Your task to perform on an android device: open app "Chime – Mobile Banking" (install if not already installed) Image 0: 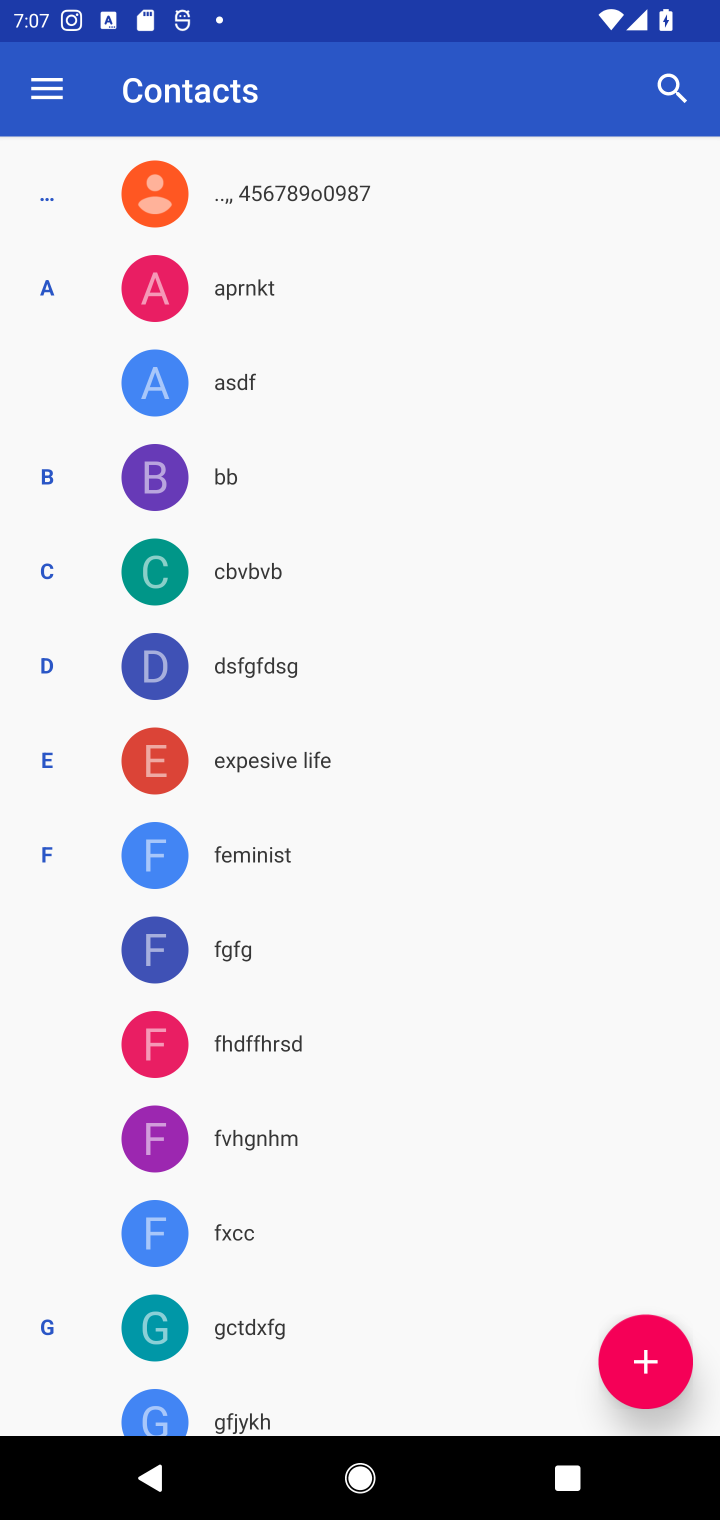
Step 0: press home button
Your task to perform on an android device: open app "Chime – Mobile Banking" (install if not already installed) Image 1: 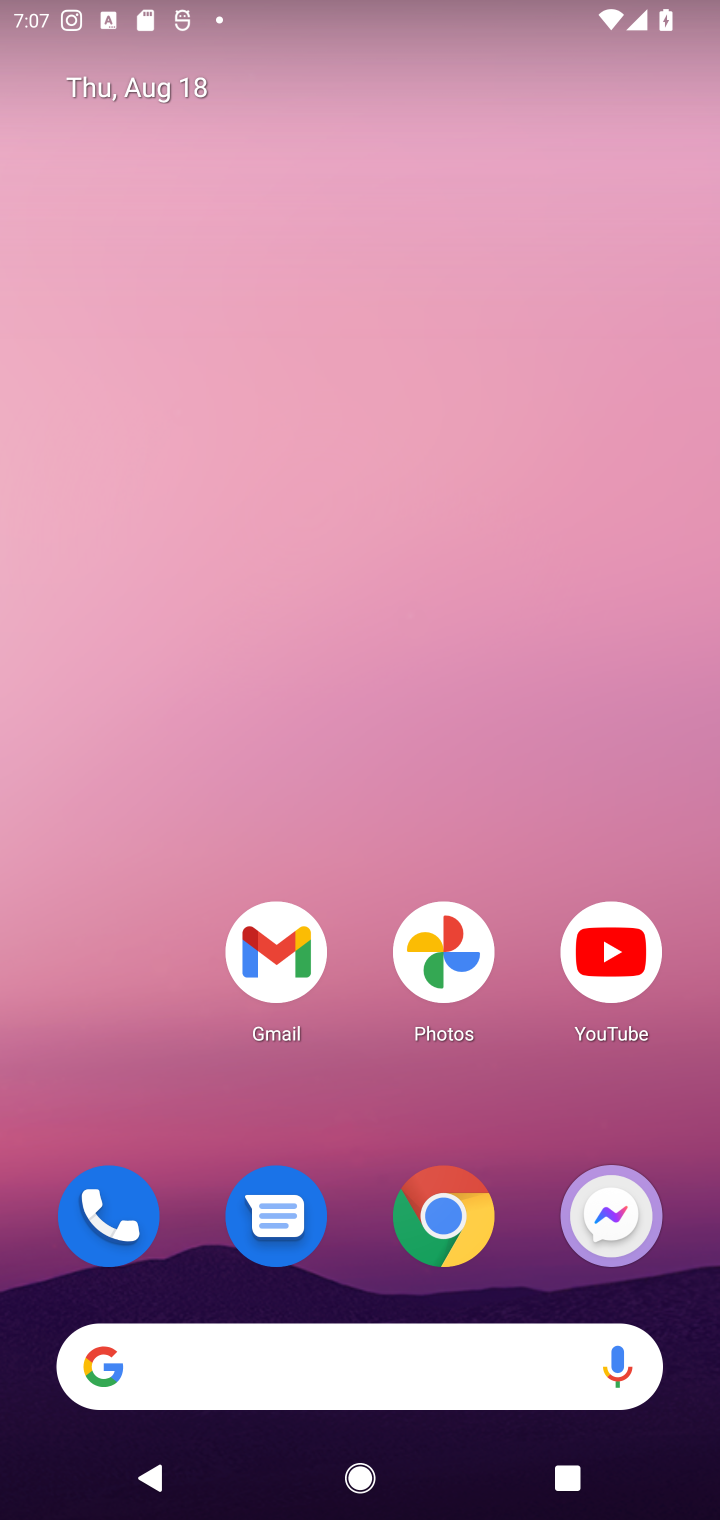
Step 1: drag from (380, 904) to (413, 381)
Your task to perform on an android device: open app "Chime – Mobile Banking" (install if not already installed) Image 2: 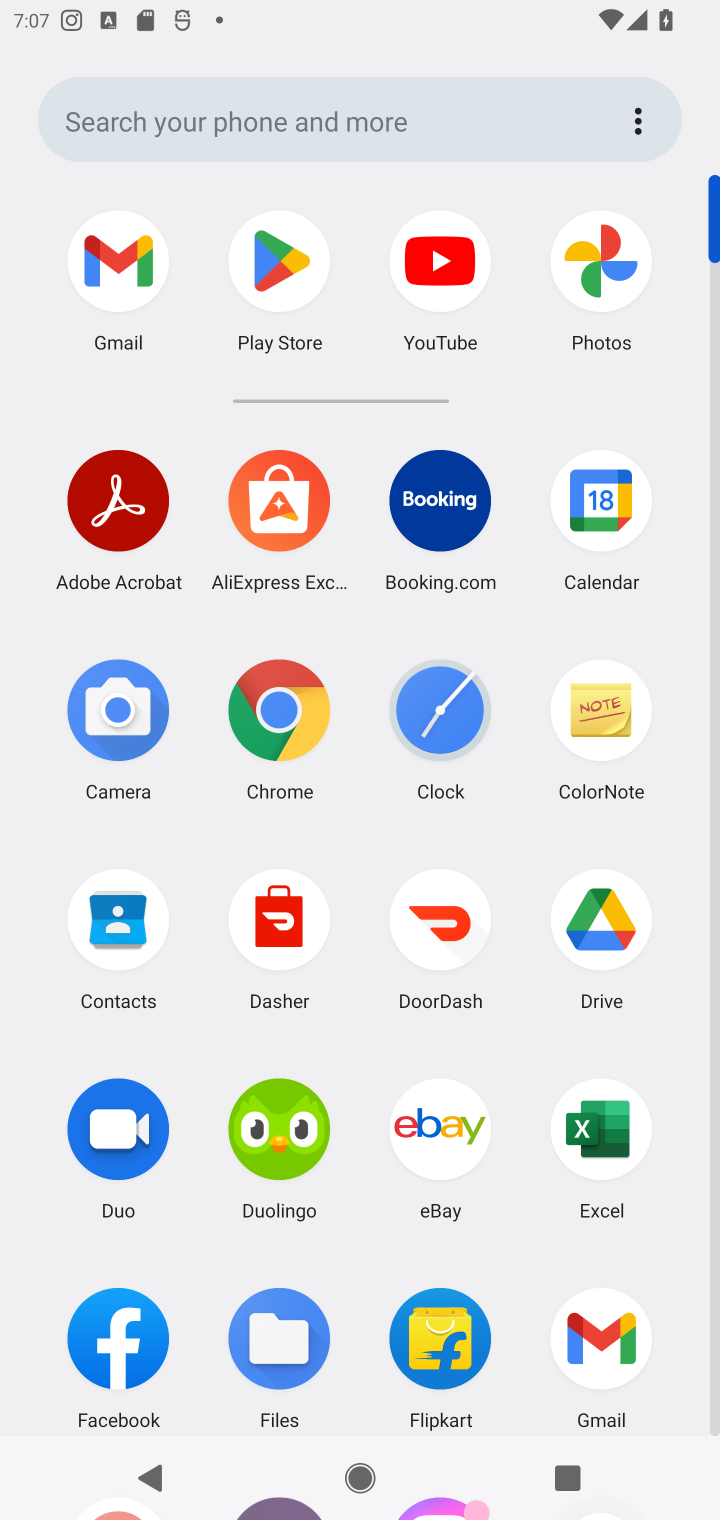
Step 2: click (295, 272)
Your task to perform on an android device: open app "Chime – Mobile Banking" (install if not already installed) Image 3: 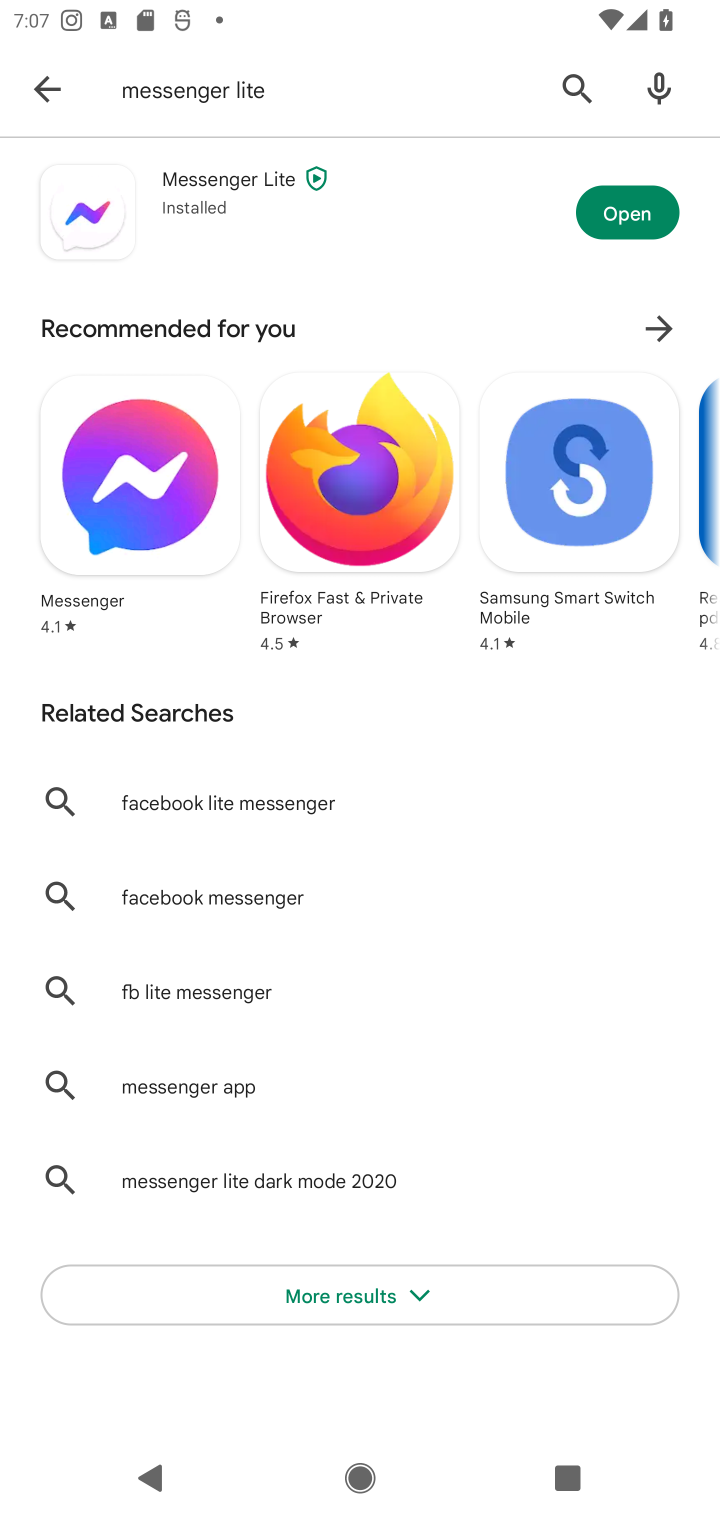
Step 3: click (578, 86)
Your task to perform on an android device: open app "Chime – Mobile Banking" (install if not already installed) Image 4: 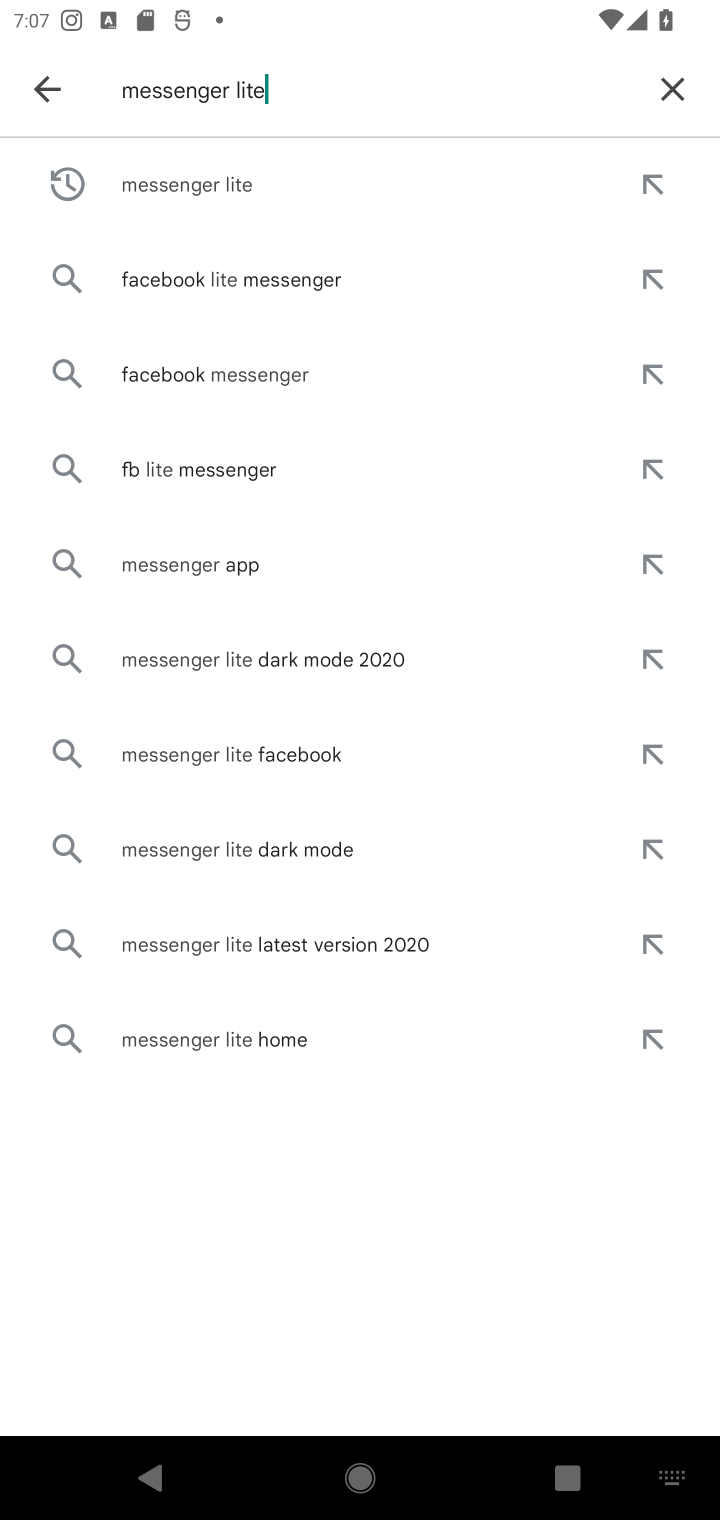
Step 4: click (659, 89)
Your task to perform on an android device: open app "Chime – Mobile Banking" (install if not already installed) Image 5: 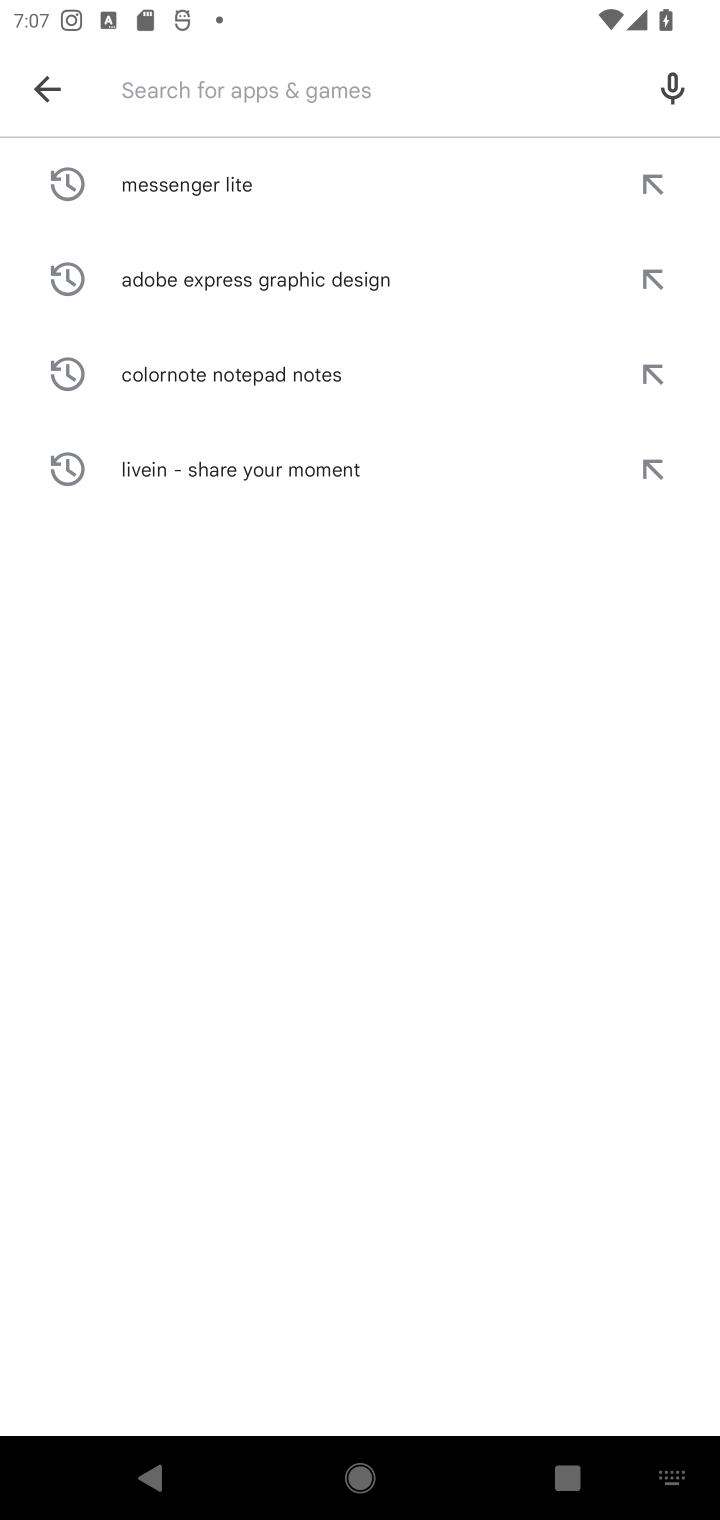
Step 5: type "Chime – Mobile Banking"
Your task to perform on an android device: open app "Chime – Mobile Banking" (install if not already installed) Image 6: 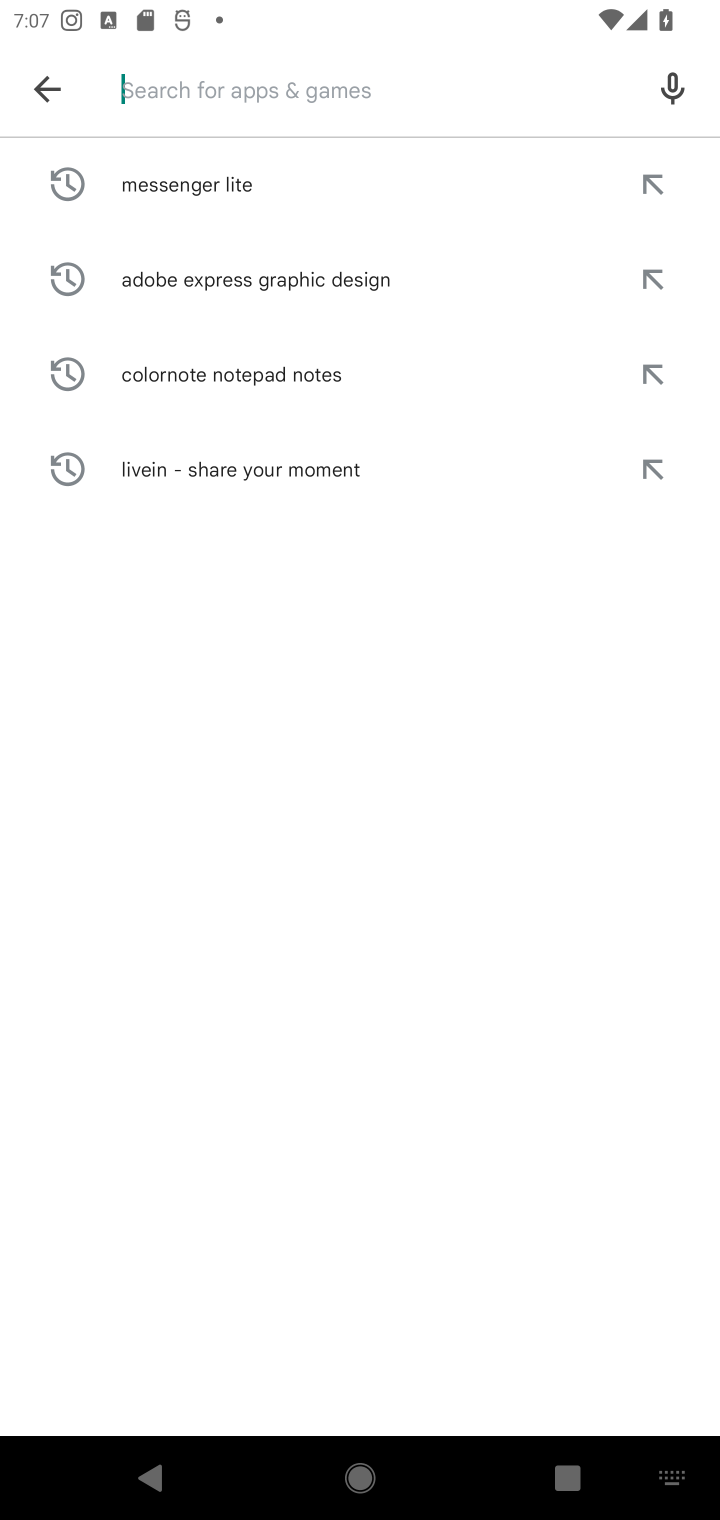
Step 6: type ""
Your task to perform on an android device: open app "Chime – Mobile Banking" (install if not already installed) Image 7: 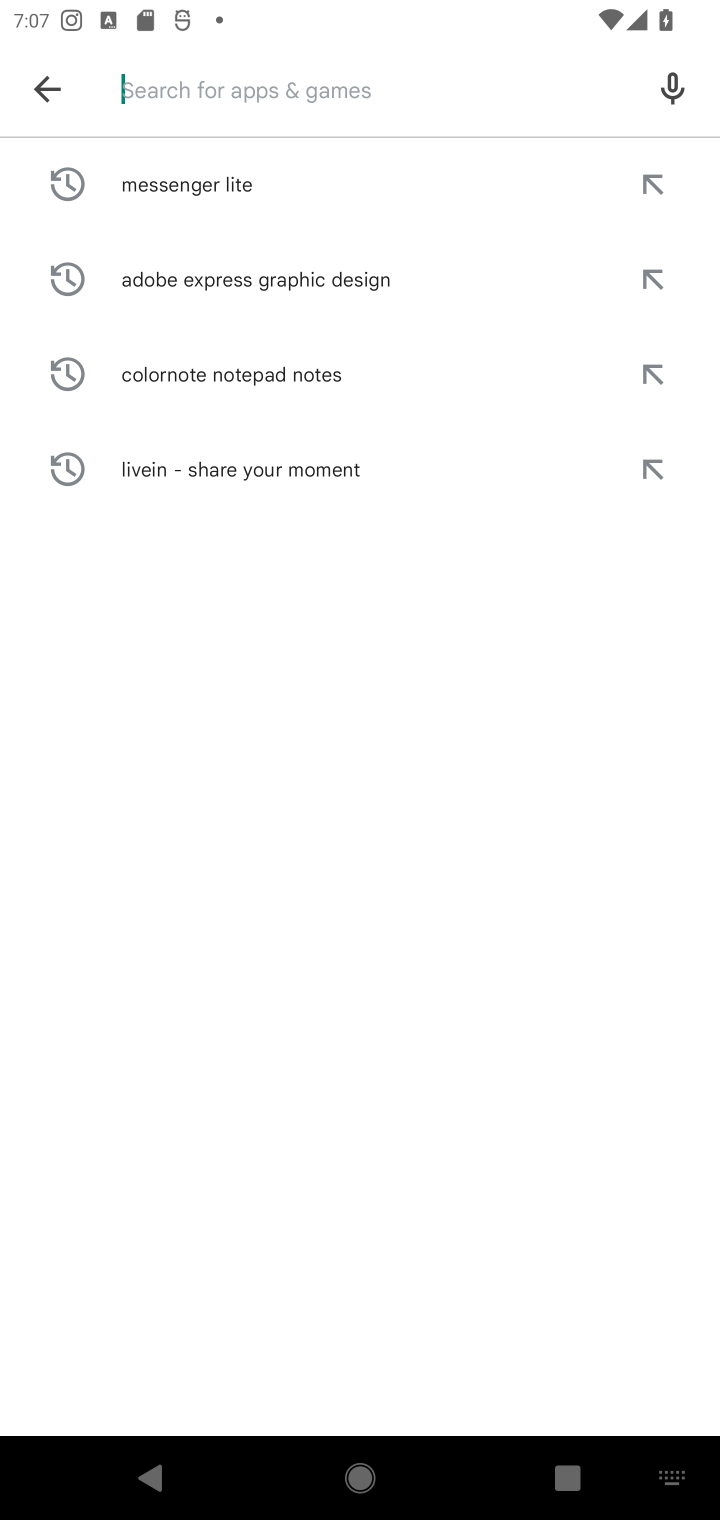
Step 7: click (288, 97)
Your task to perform on an android device: open app "Chime – Mobile Banking" (install if not already installed) Image 8: 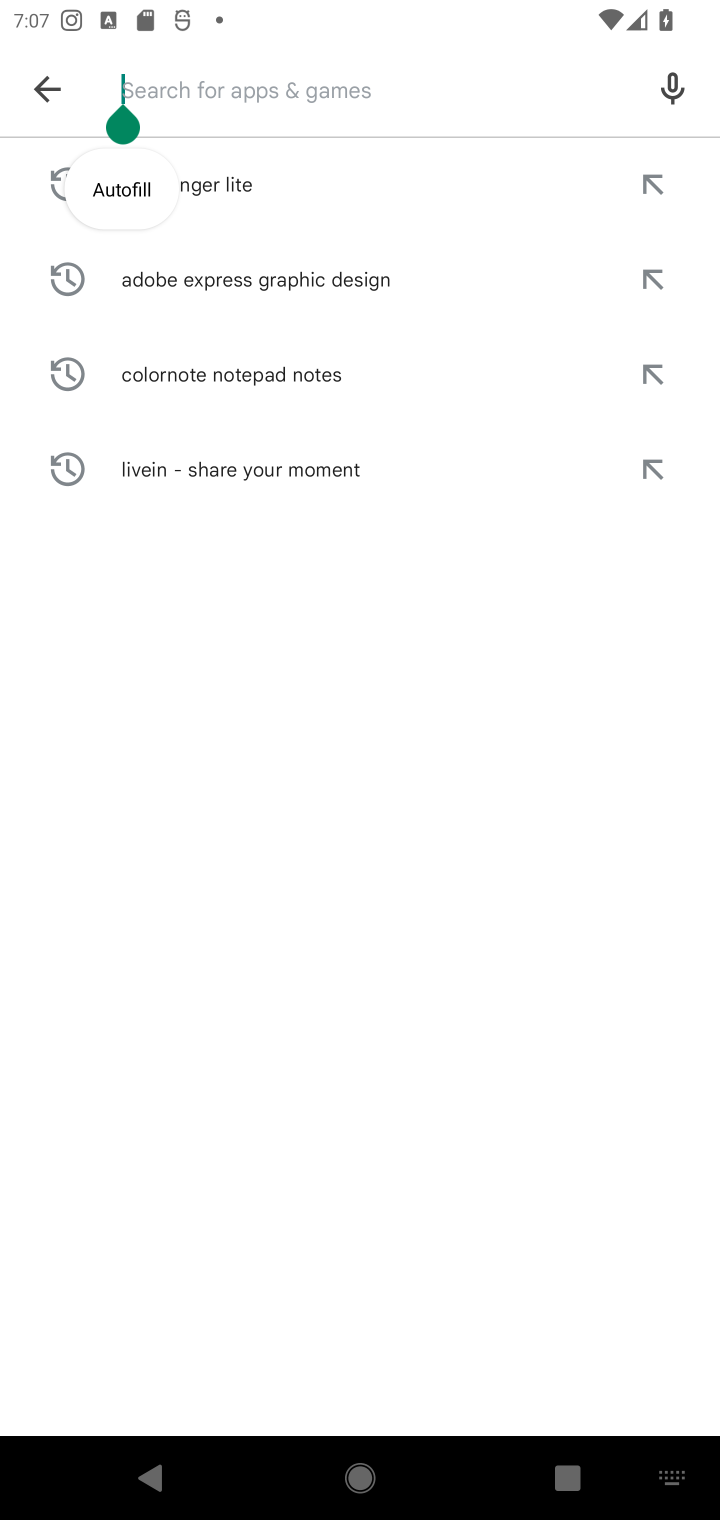
Step 8: type "Chime"
Your task to perform on an android device: open app "Chime – Mobile Banking" (install if not already installed) Image 9: 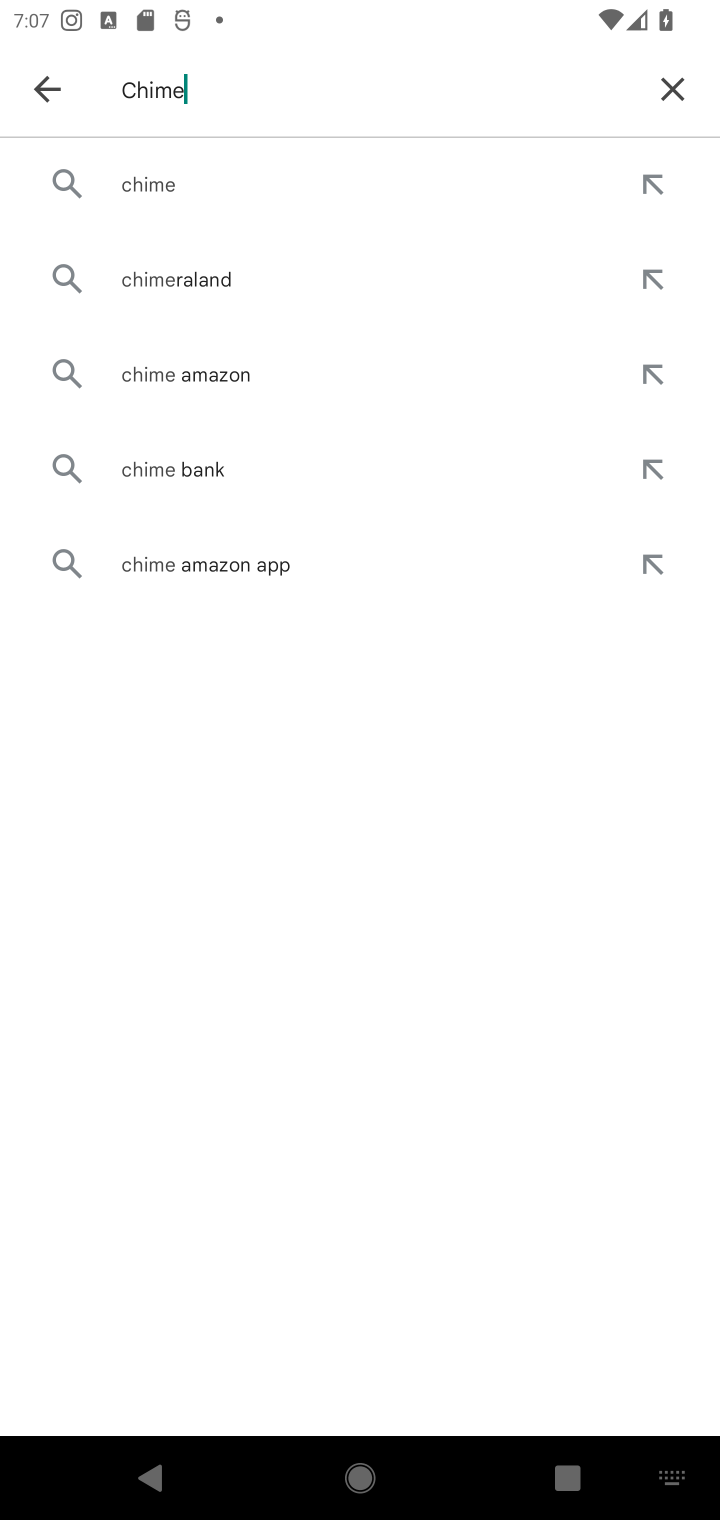
Step 9: click (241, 164)
Your task to perform on an android device: open app "Chime – Mobile Banking" (install if not already installed) Image 10: 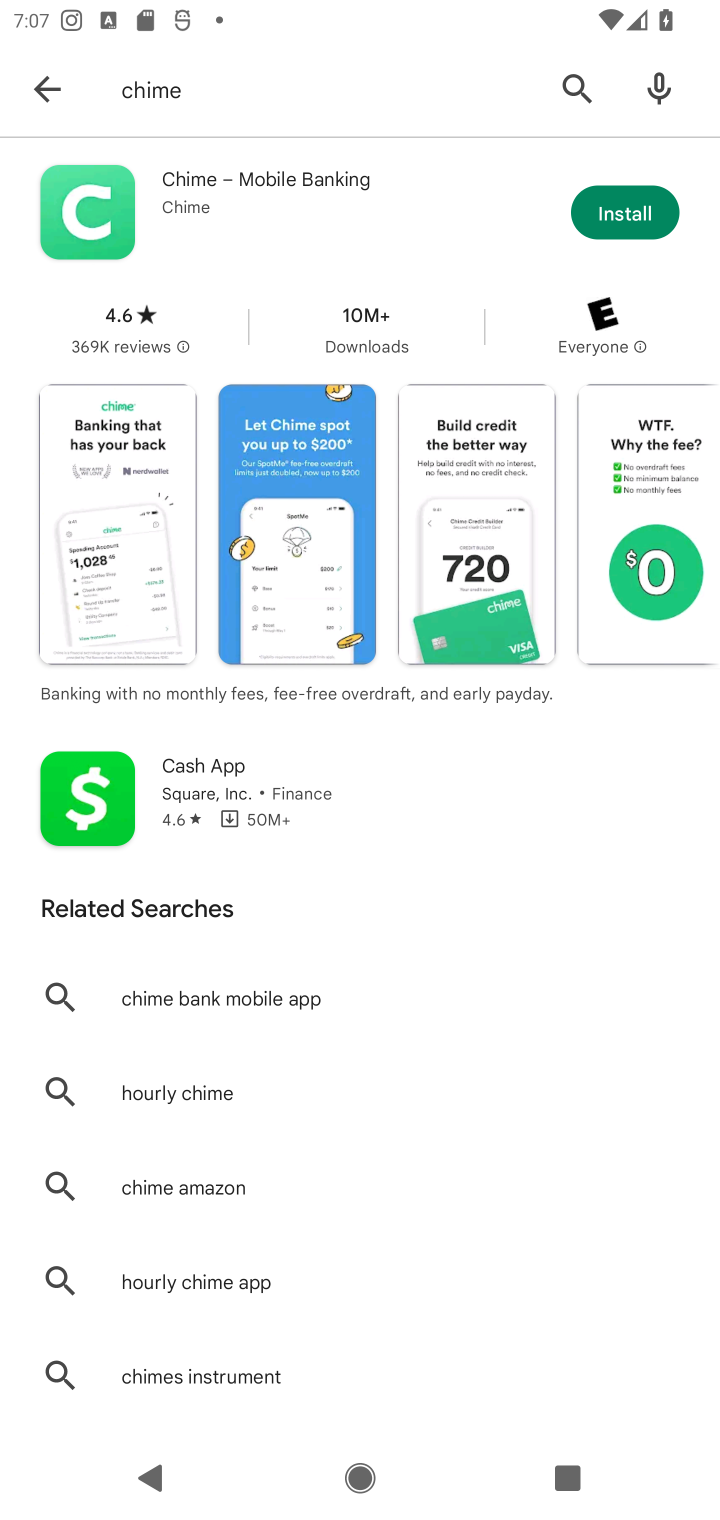
Step 10: click (594, 215)
Your task to perform on an android device: open app "Chime – Mobile Banking" (install if not already installed) Image 11: 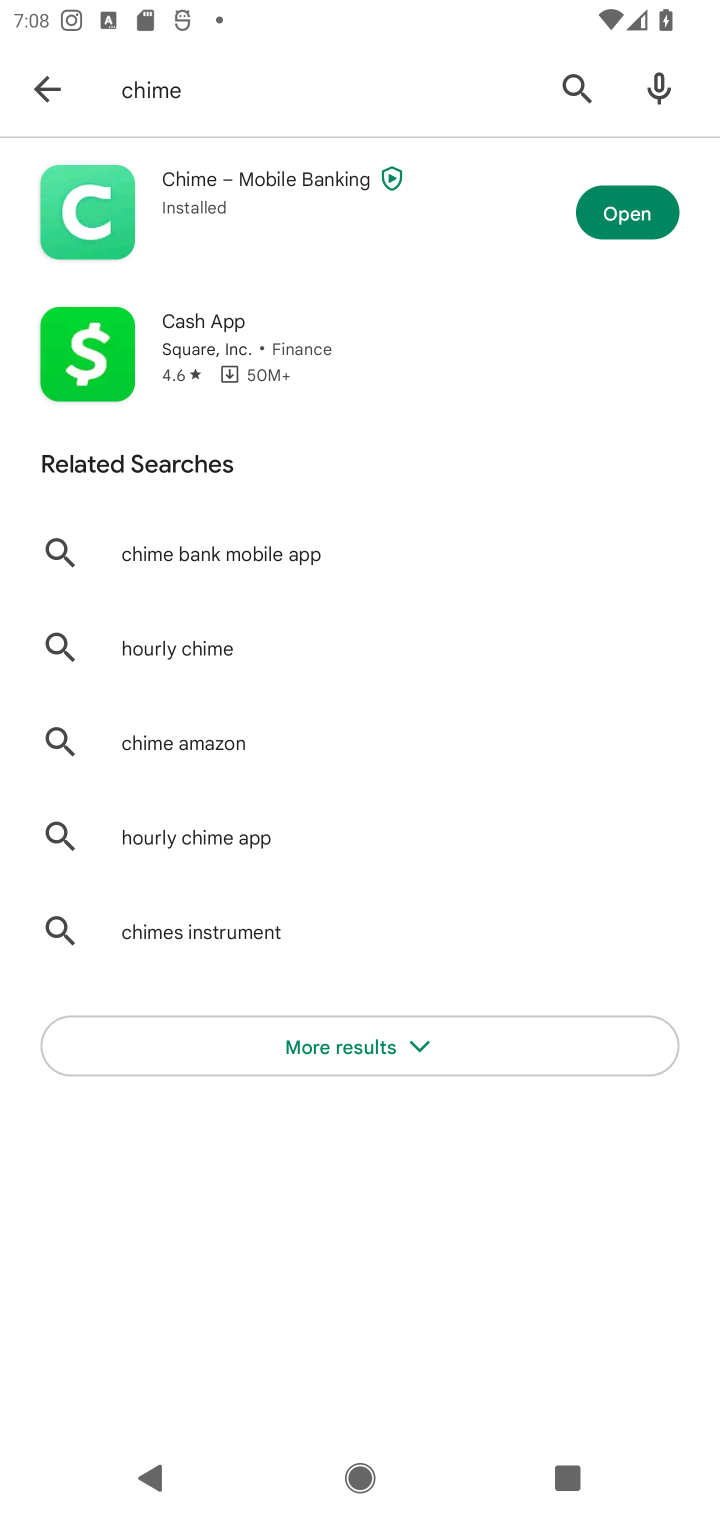
Step 11: click (613, 218)
Your task to perform on an android device: open app "Chime – Mobile Banking" (install if not already installed) Image 12: 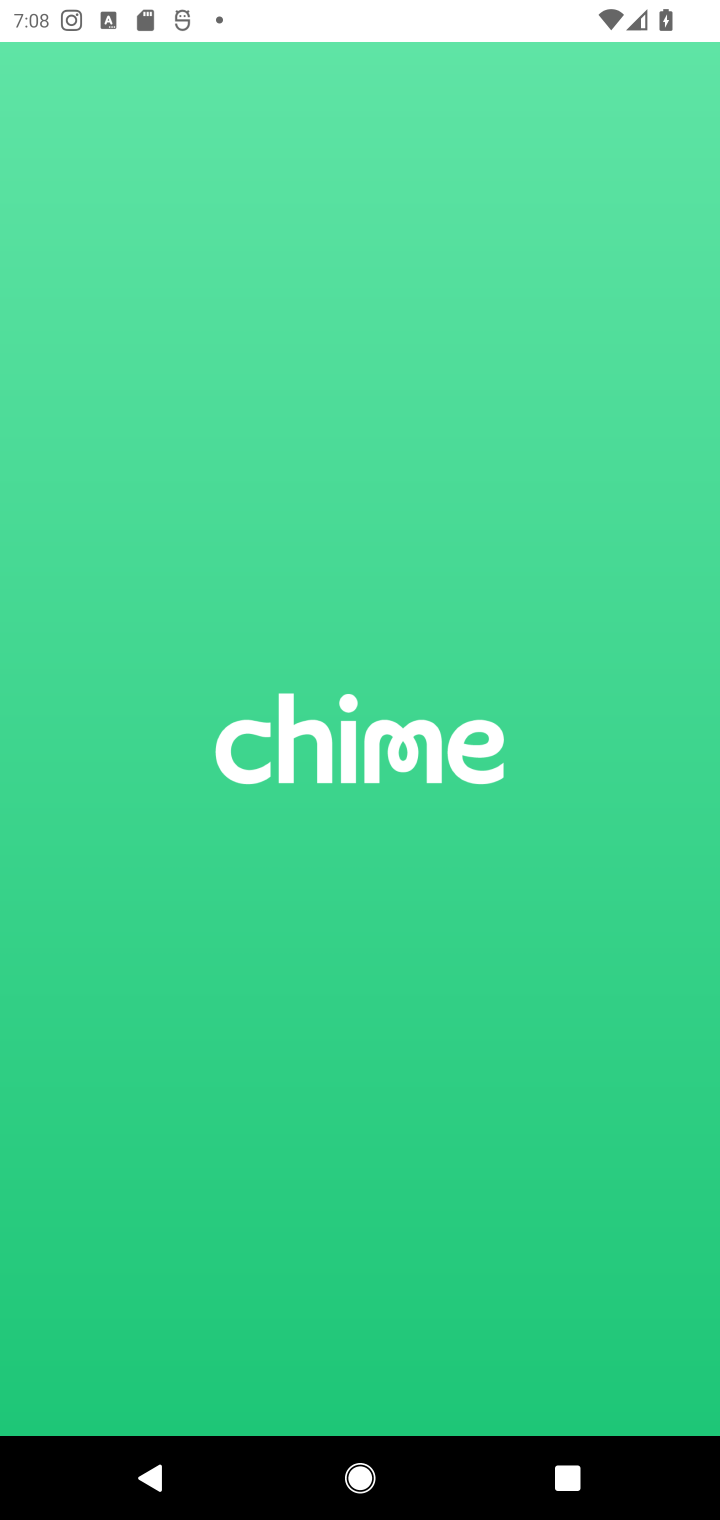
Step 12: task complete